Your task to perform on an android device: turn vacation reply on in the gmail app Image 0: 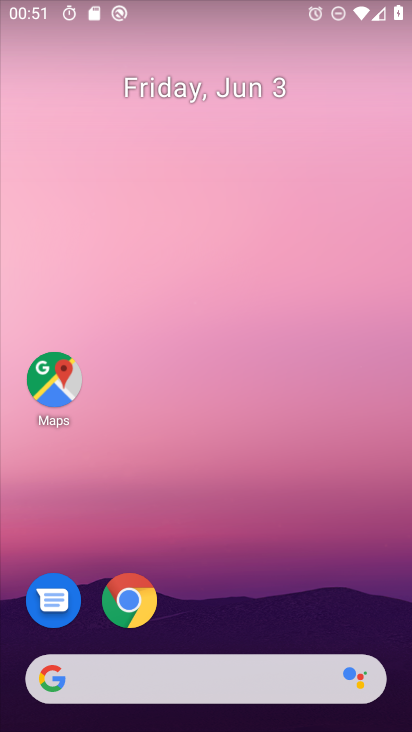
Step 0: drag from (204, 620) to (198, 152)
Your task to perform on an android device: turn vacation reply on in the gmail app Image 1: 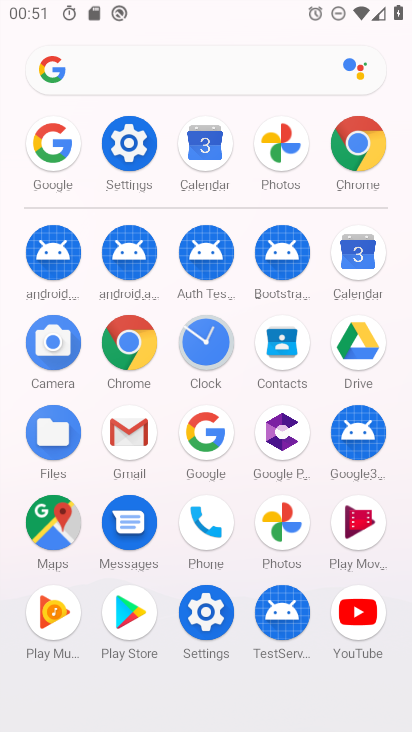
Step 1: click (133, 433)
Your task to perform on an android device: turn vacation reply on in the gmail app Image 2: 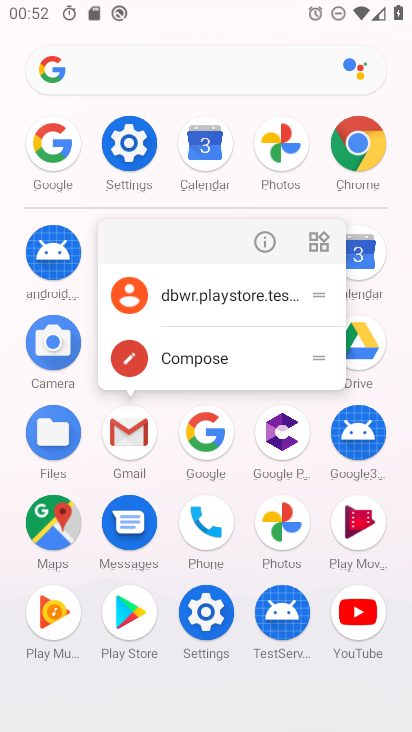
Step 2: click (133, 433)
Your task to perform on an android device: turn vacation reply on in the gmail app Image 3: 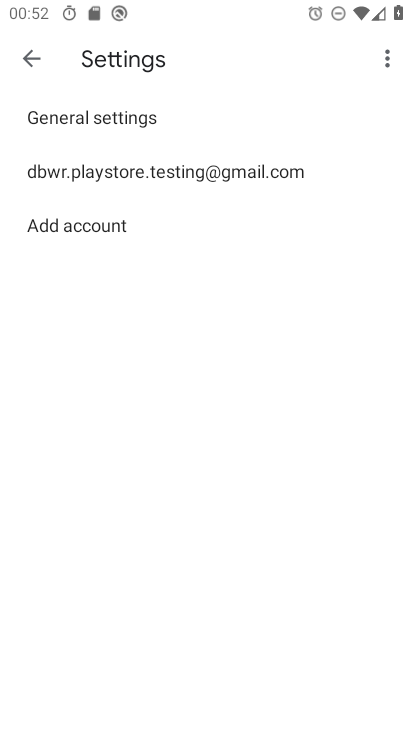
Step 3: click (155, 171)
Your task to perform on an android device: turn vacation reply on in the gmail app Image 4: 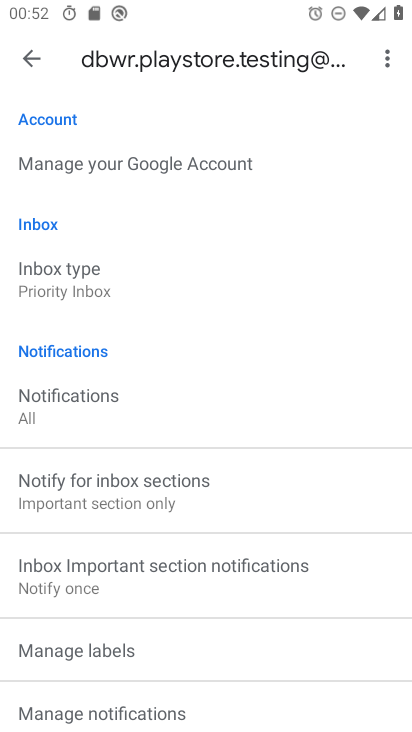
Step 4: drag from (271, 552) to (208, 75)
Your task to perform on an android device: turn vacation reply on in the gmail app Image 5: 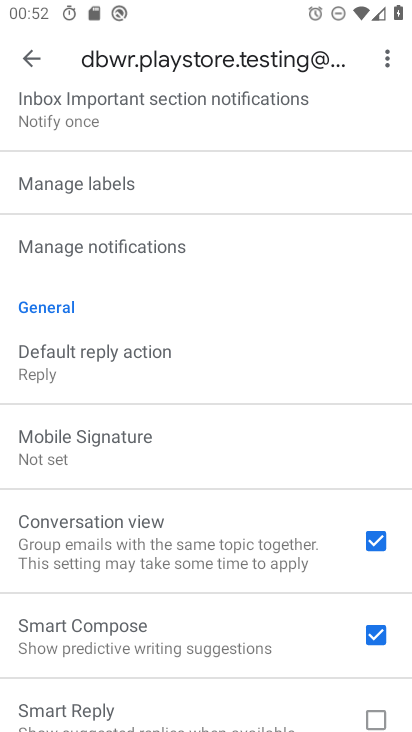
Step 5: drag from (165, 672) to (170, 274)
Your task to perform on an android device: turn vacation reply on in the gmail app Image 6: 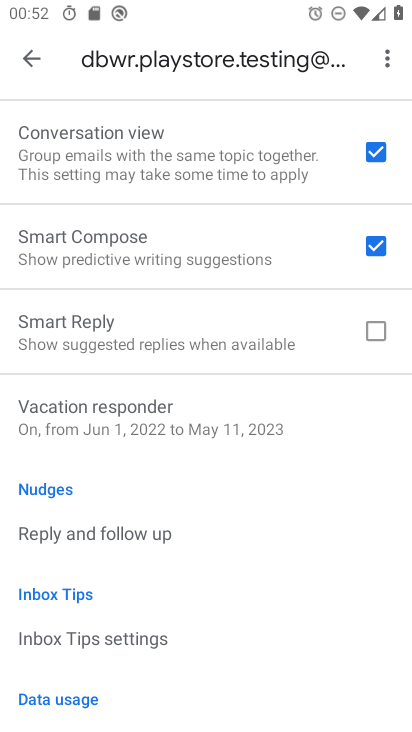
Step 6: click (124, 418)
Your task to perform on an android device: turn vacation reply on in the gmail app Image 7: 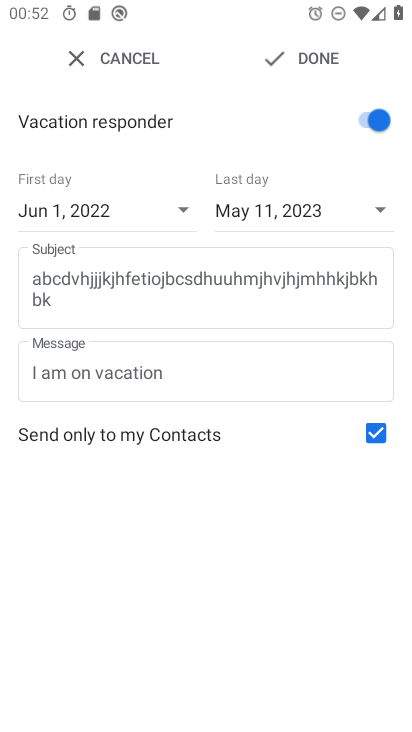
Step 7: task complete